Your task to perform on an android device: turn off location history Image 0: 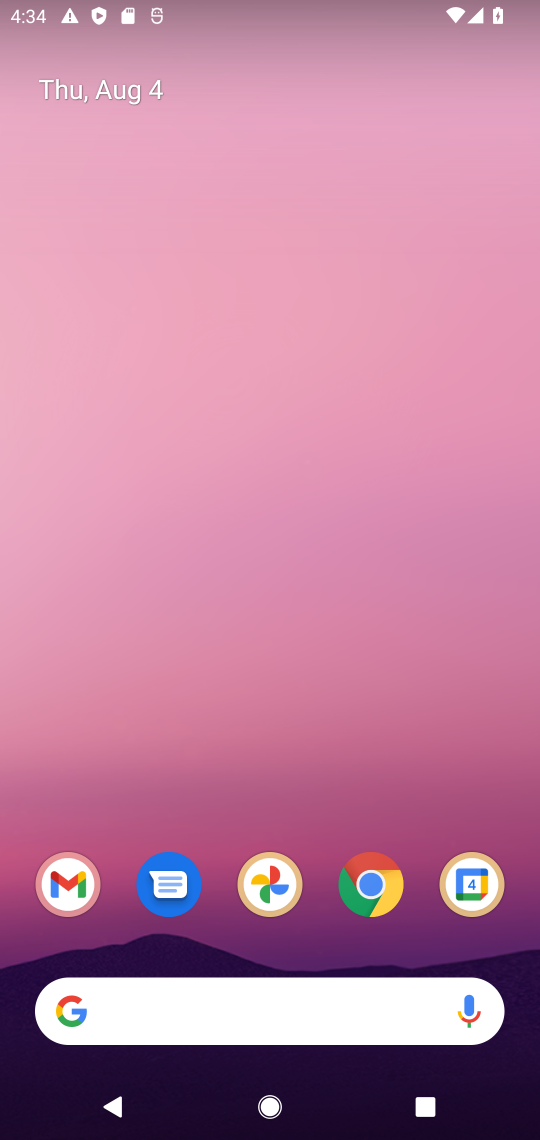
Step 0: drag from (428, 818) to (370, 241)
Your task to perform on an android device: turn off location history Image 1: 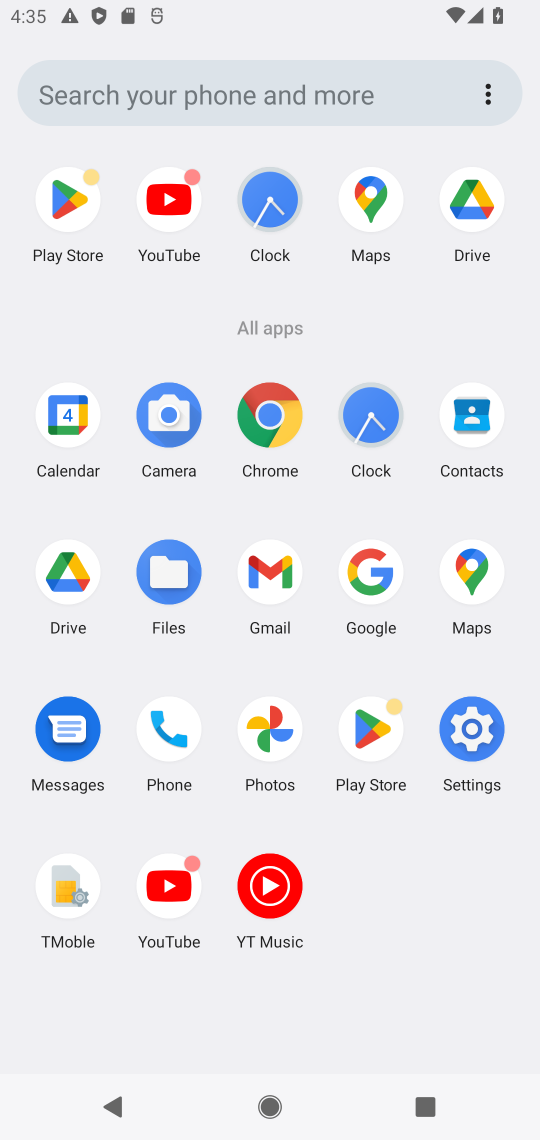
Step 1: click (469, 722)
Your task to perform on an android device: turn off location history Image 2: 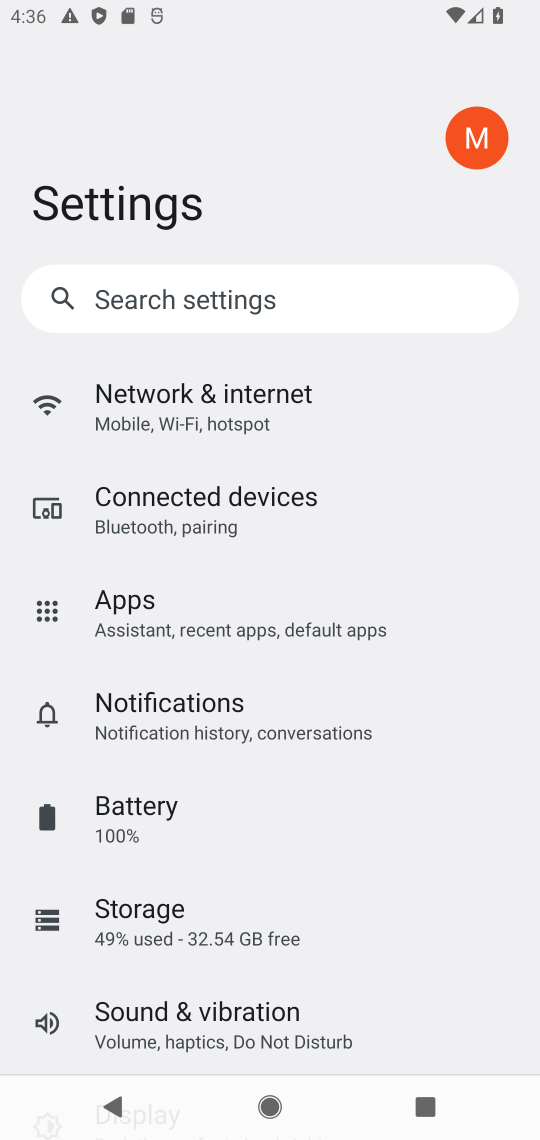
Step 2: drag from (417, 861) to (460, 506)
Your task to perform on an android device: turn off location history Image 3: 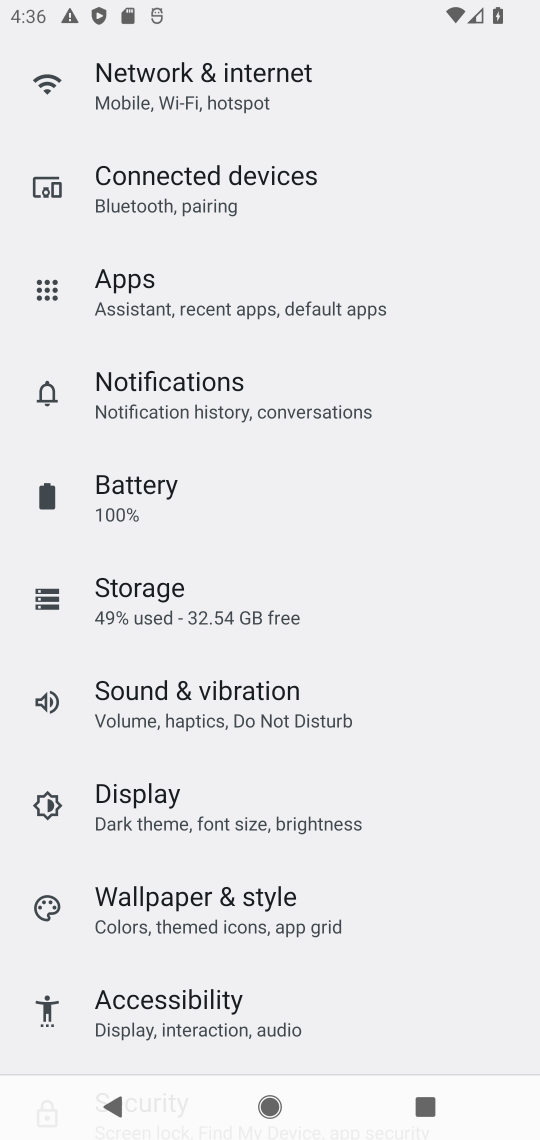
Step 3: drag from (225, 987) to (324, 514)
Your task to perform on an android device: turn off location history Image 4: 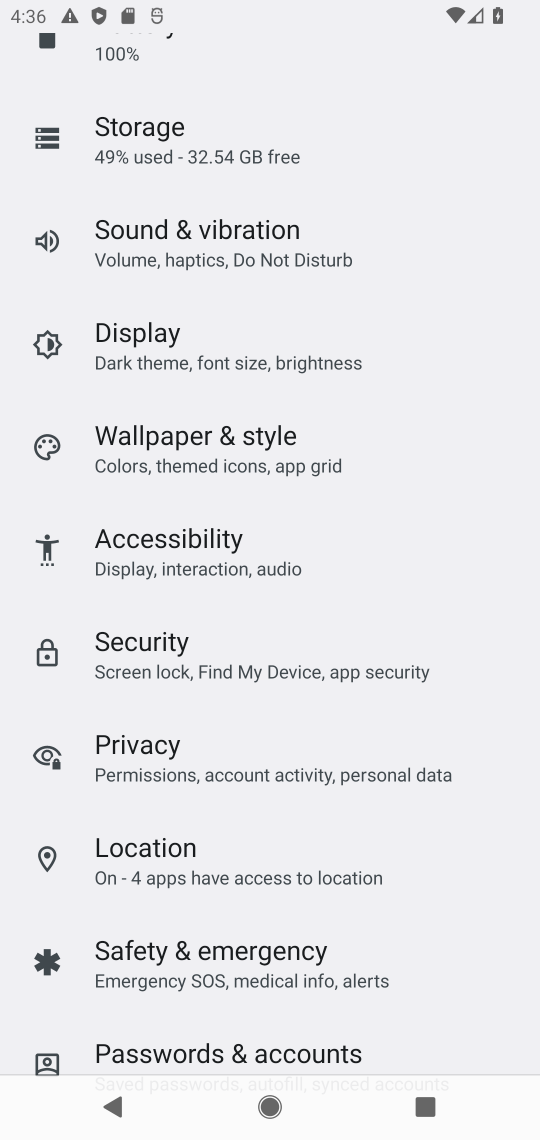
Step 4: click (184, 862)
Your task to perform on an android device: turn off location history Image 5: 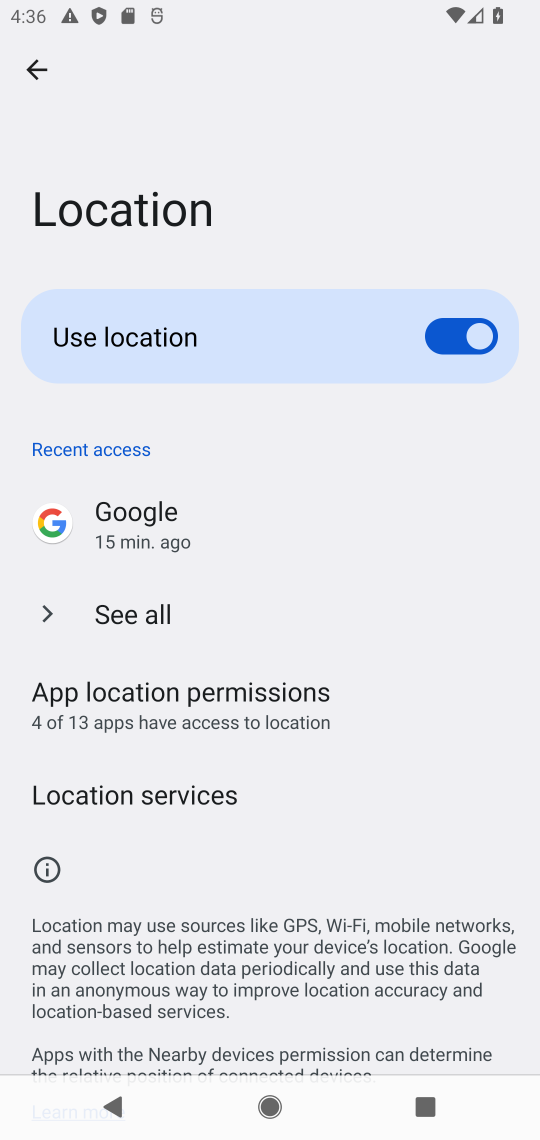
Step 5: click (223, 785)
Your task to perform on an android device: turn off location history Image 6: 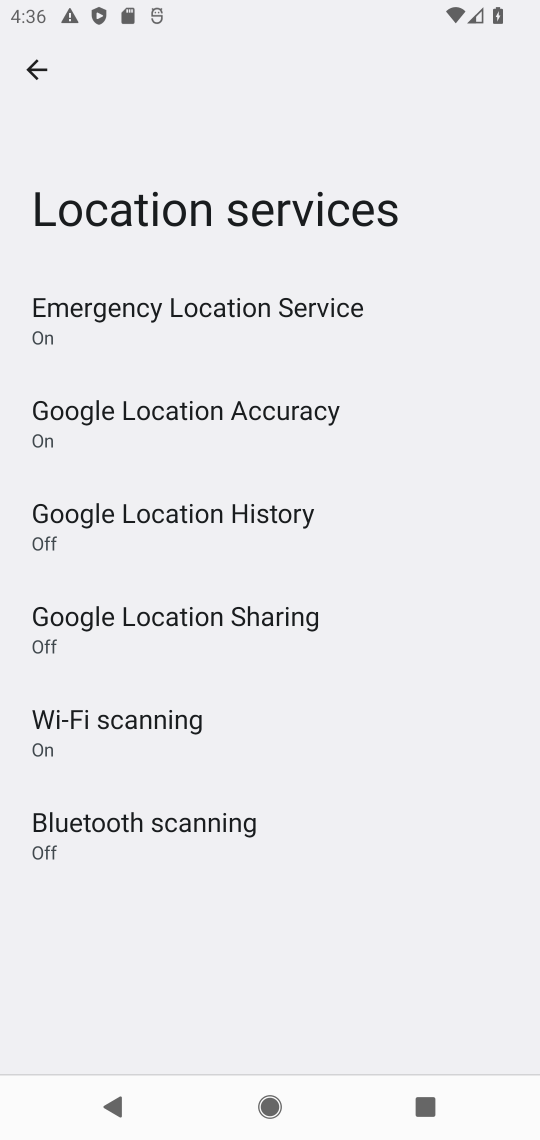
Step 6: click (206, 511)
Your task to perform on an android device: turn off location history Image 7: 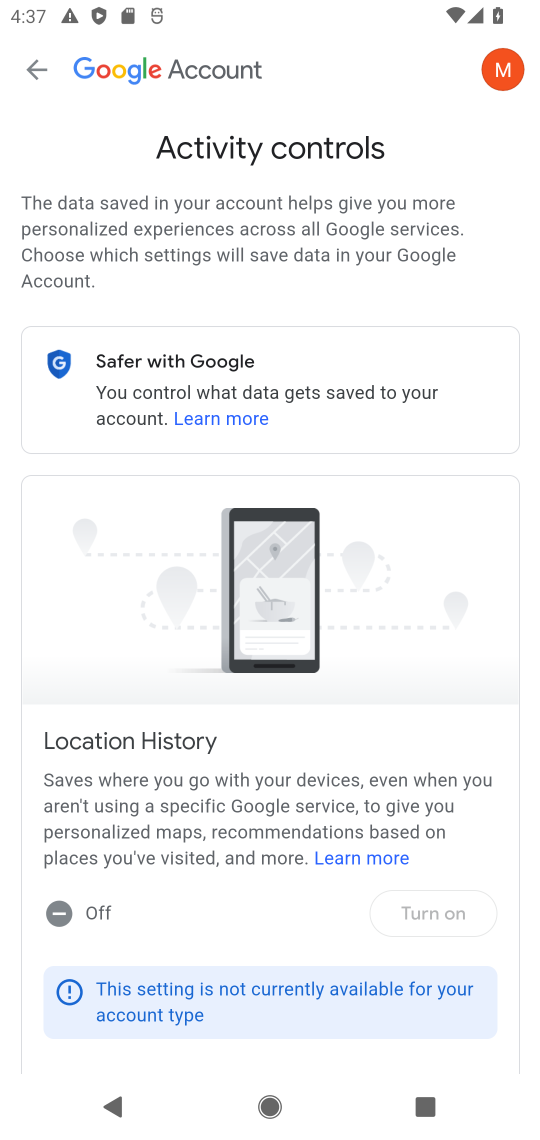
Step 7: task complete